Your task to perform on an android device: stop showing notifications on the lock screen Image 0: 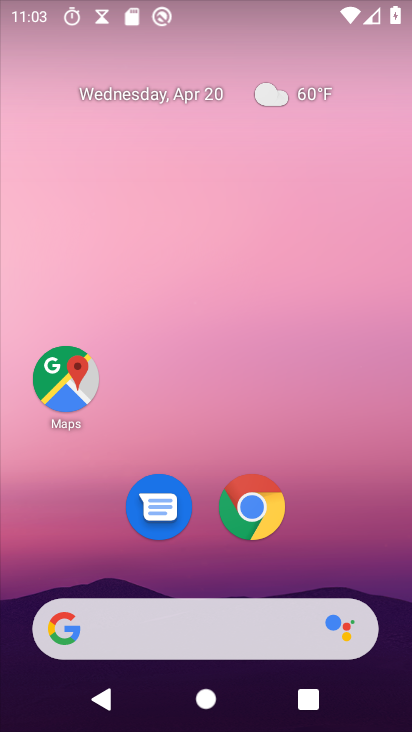
Step 0: drag from (197, 575) to (261, 144)
Your task to perform on an android device: stop showing notifications on the lock screen Image 1: 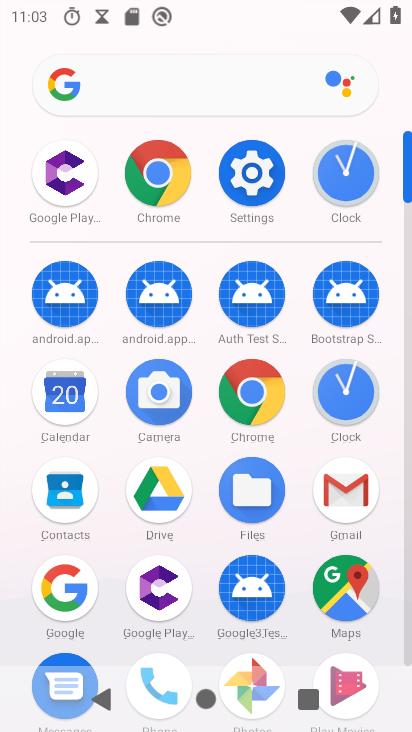
Step 1: click (248, 179)
Your task to perform on an android device: stop showing notifications on the lock screen Image 2: 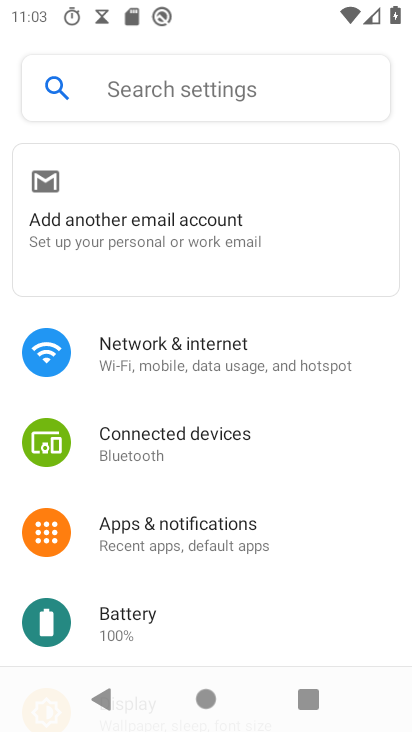
Step 2: click (193, 540)
Your task to perform on an android device: stop showing notifications on the lock screen Image 3: 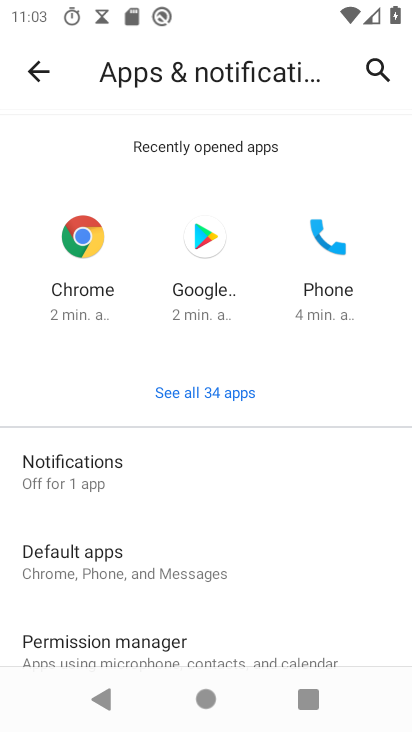
Step 3: click (109, 466)
Your task to perform on an android device: stop showing notifications on the lock screen Image 4: 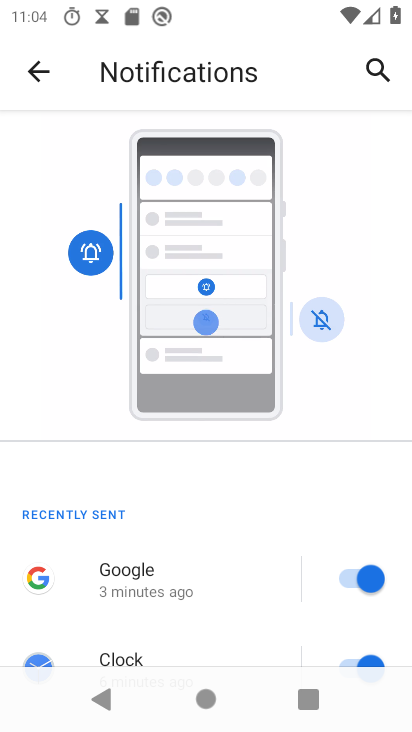
Step 4: drag from (193, 565) to (256, 270)
Your task to perform on an android device: stop showing notifications on the lock screen Image 5: 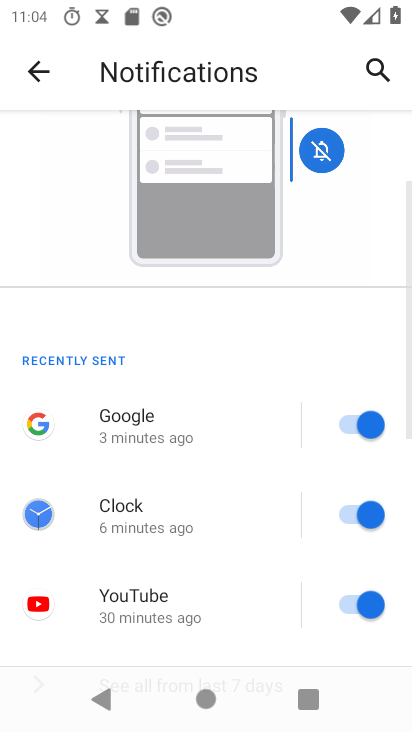
Step 5: drag from (157, 601) to (213, 359)
Your task to perform on an android device: stop showing notifications on the lock screen Image 6: 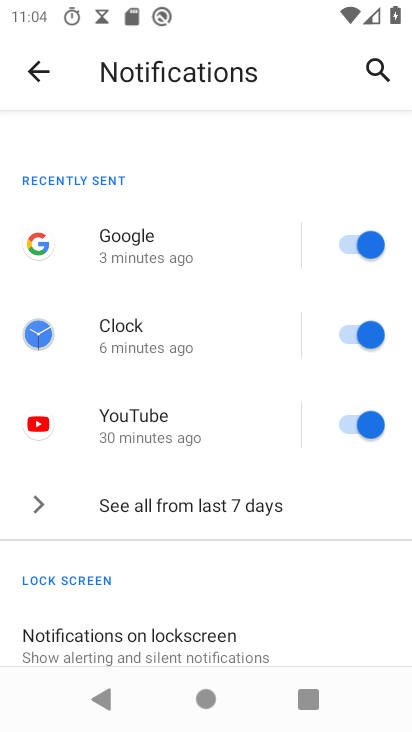
Step 6: click (148, 645)
Your task to perform on an android device: stop showing notifications on the lock screen Image 7: 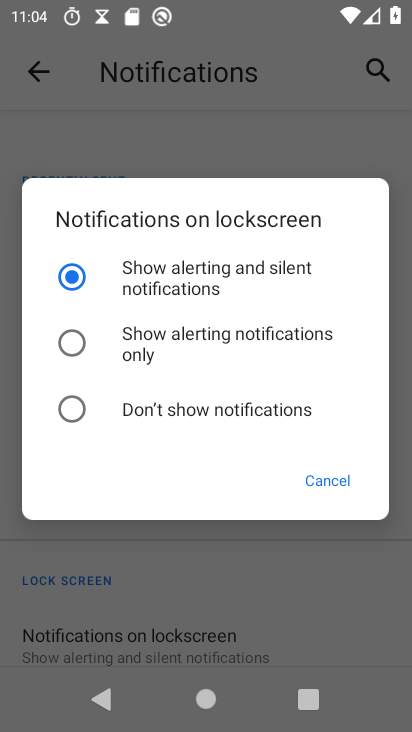
Step 7: click (190, 404)
Your task to perform on an android device: stop showing notifications on the lock screen Image 8: 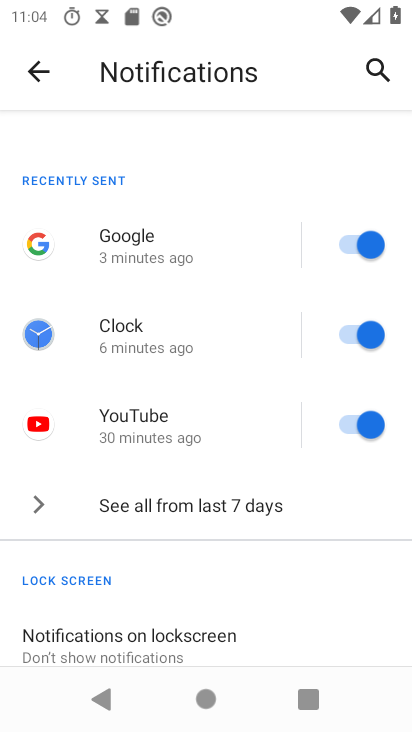
Step 8: task complete